Your task to perform on an android device: change alarm snooze length Image 0: 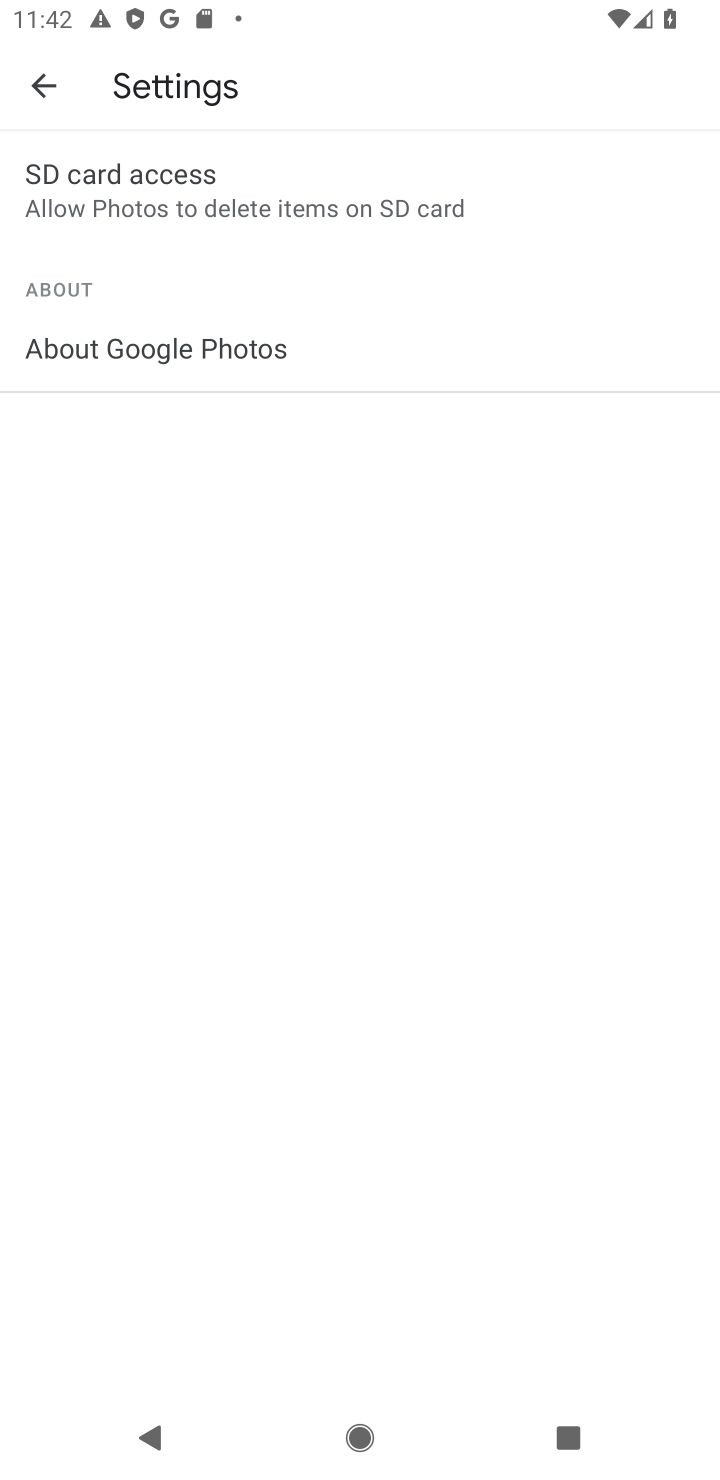
Step 0: press home button
Your task to perform on an android device: change alarm snooze length Image 1: 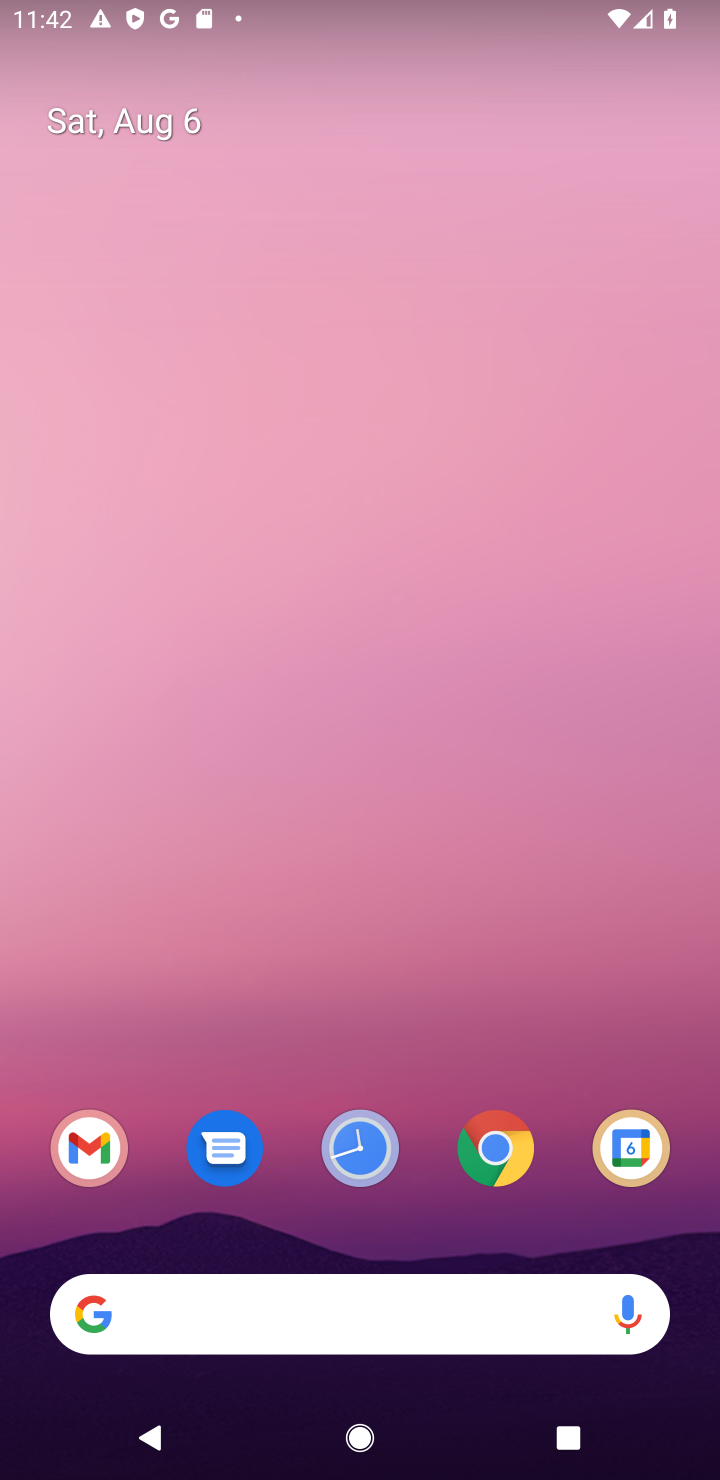
Step 1: click (369, 1143)
Your task to perform on an android device: change alarm snooze length Image 2: 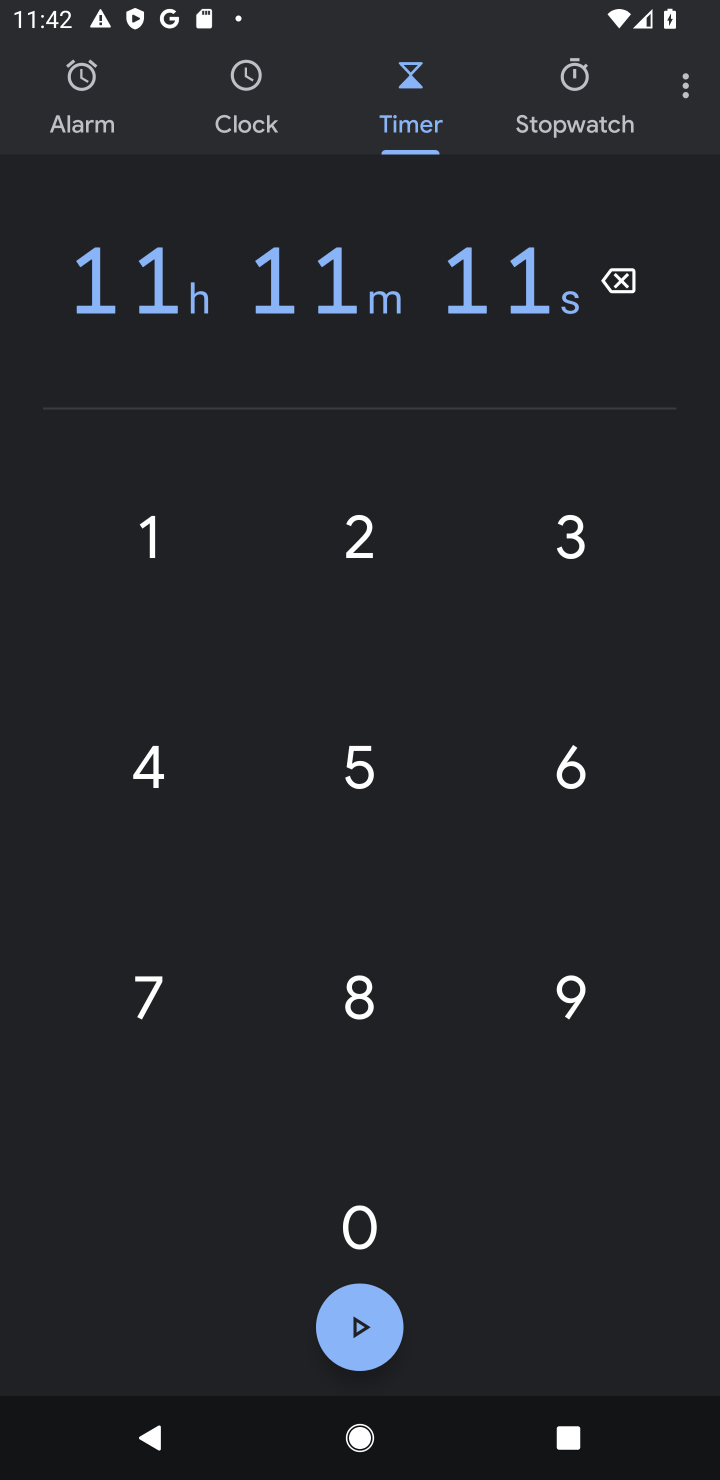
Step 2: click (694, 69)
Your task to perform on an android device: change alarm snooze length Image 3: 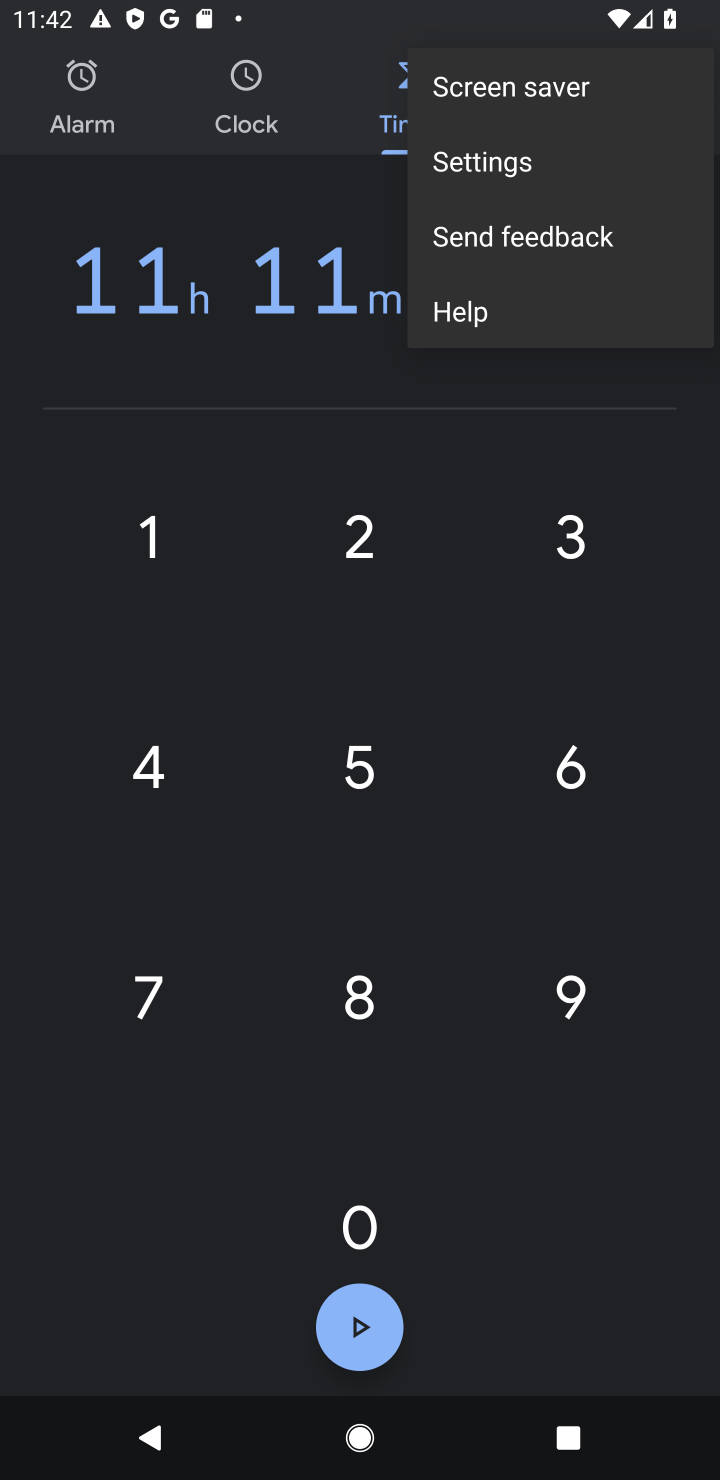
Step 3: click (491, 157)
Your task to perform on an android device: change alarm snooze length Image 4: 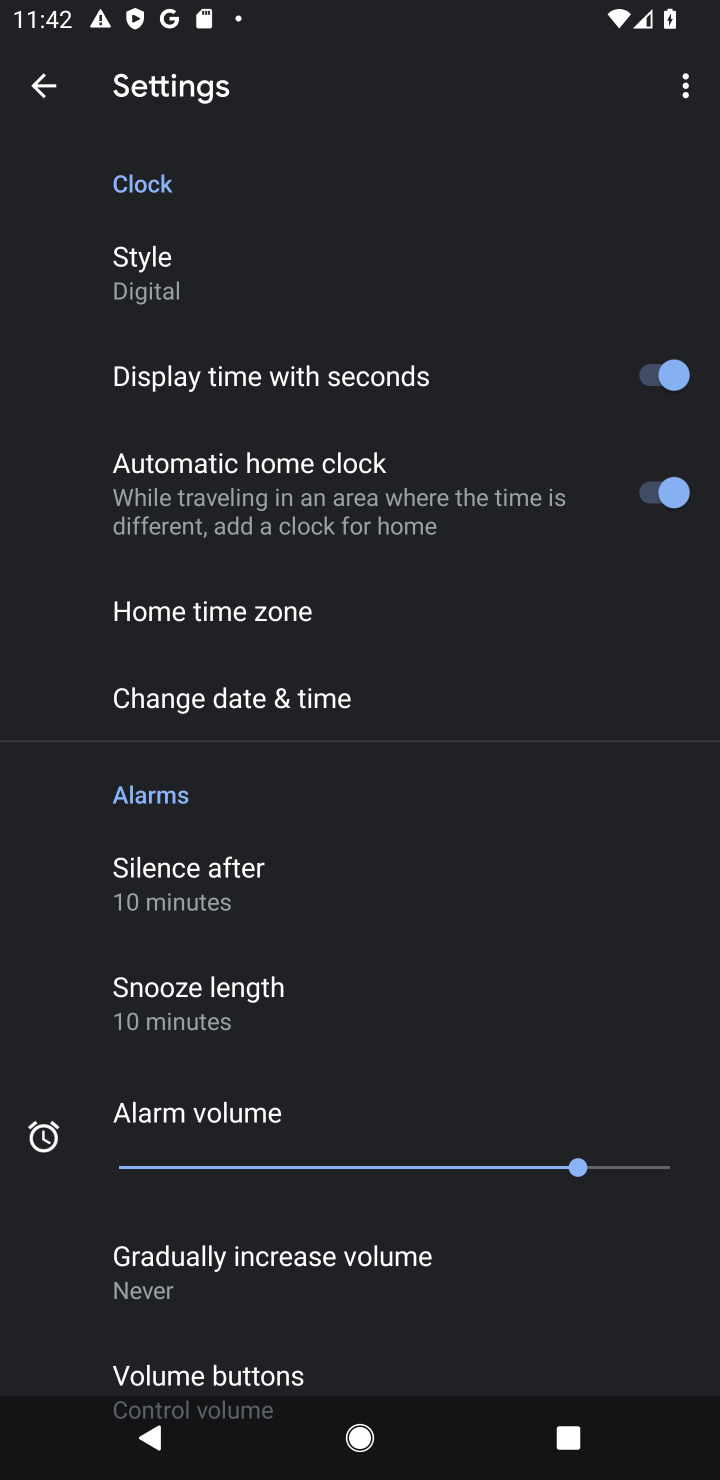
Step 4: click (221, 983)
Your task to perform on an android device: change alarm snooze length Image 5: 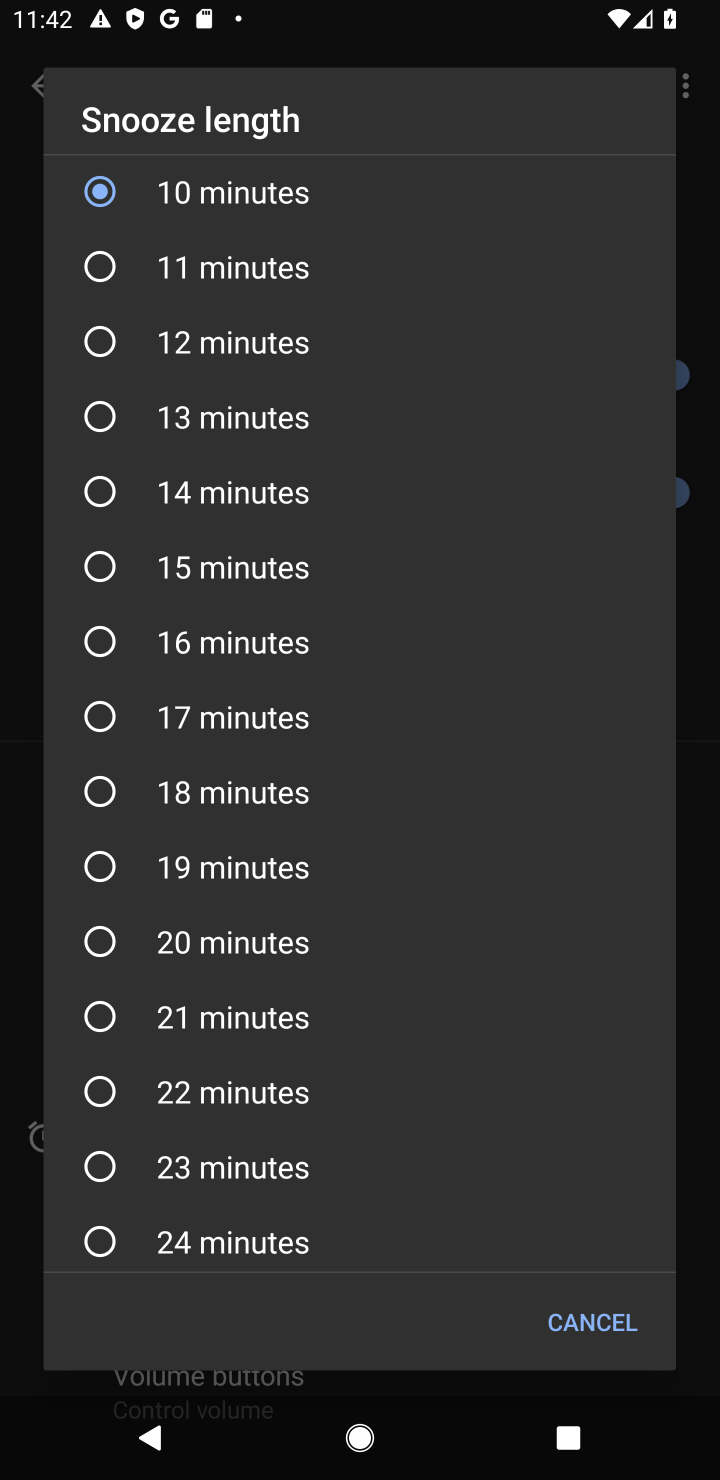
Step 5: click (93, 561)
Your task to perform on an android device: change alarm snooze length Image 6: 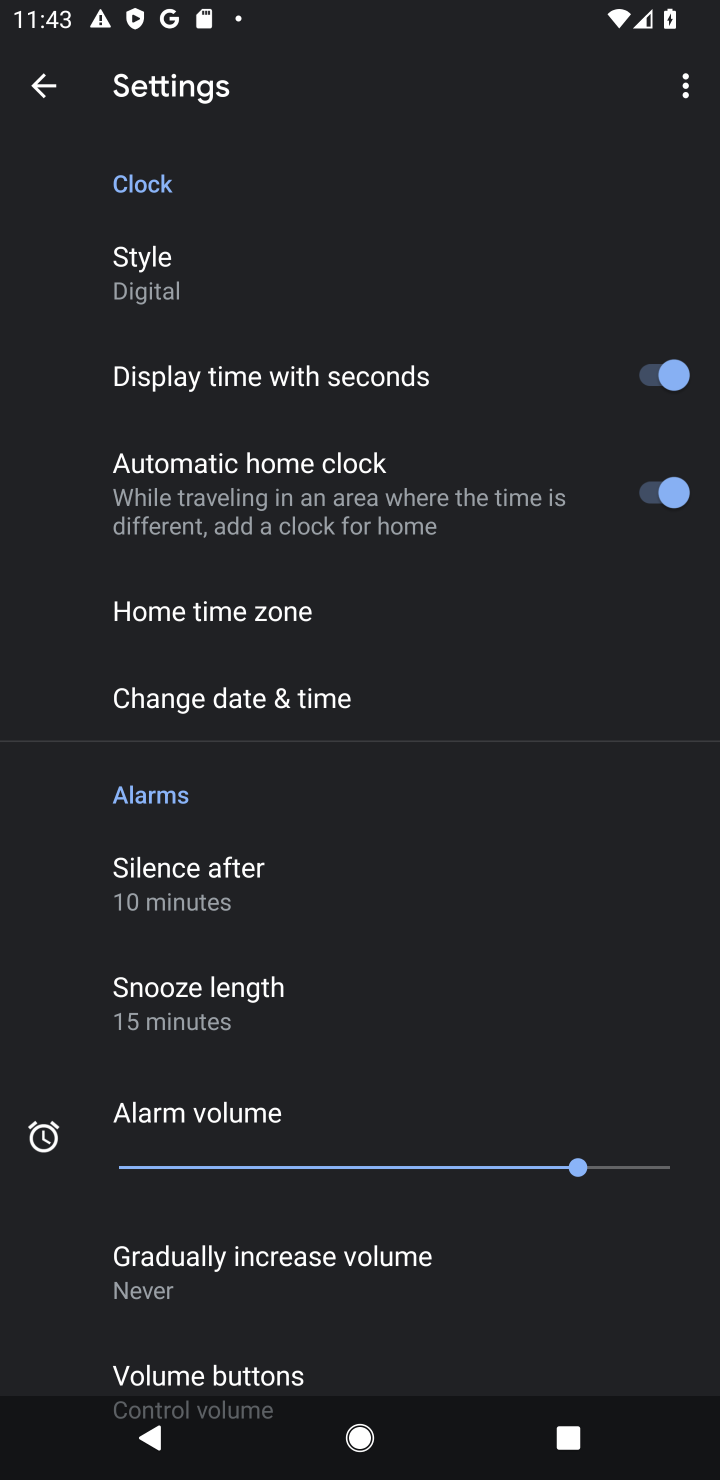
Step 6: task complete